Your task to perform on an android device: empty trash in google photos Image 0: 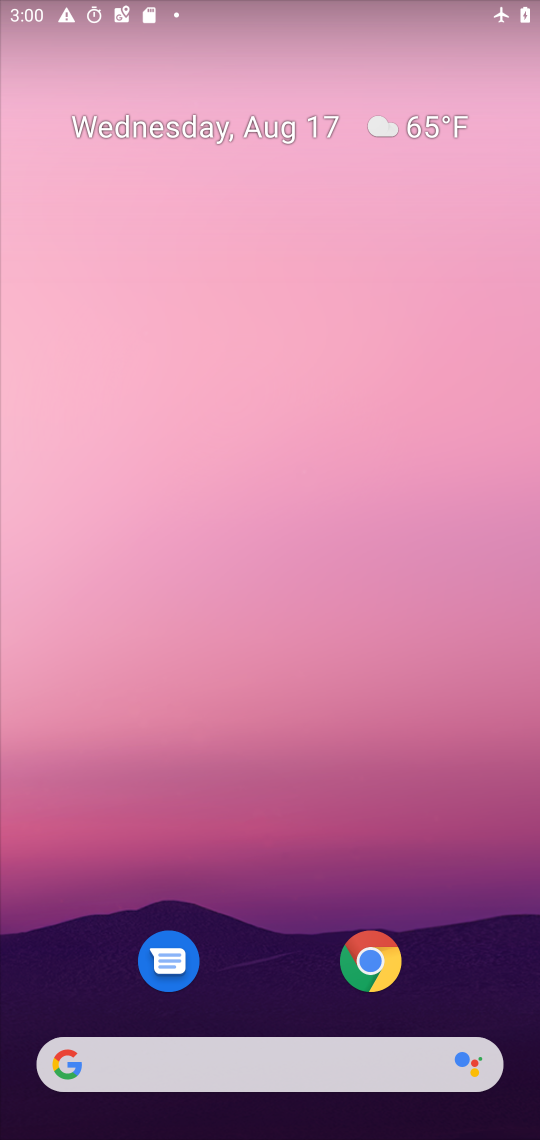
Step 0: drag from (279, 886) to (323, 0)
Your task to perform on an android device: empty trash in google photos Image 1: 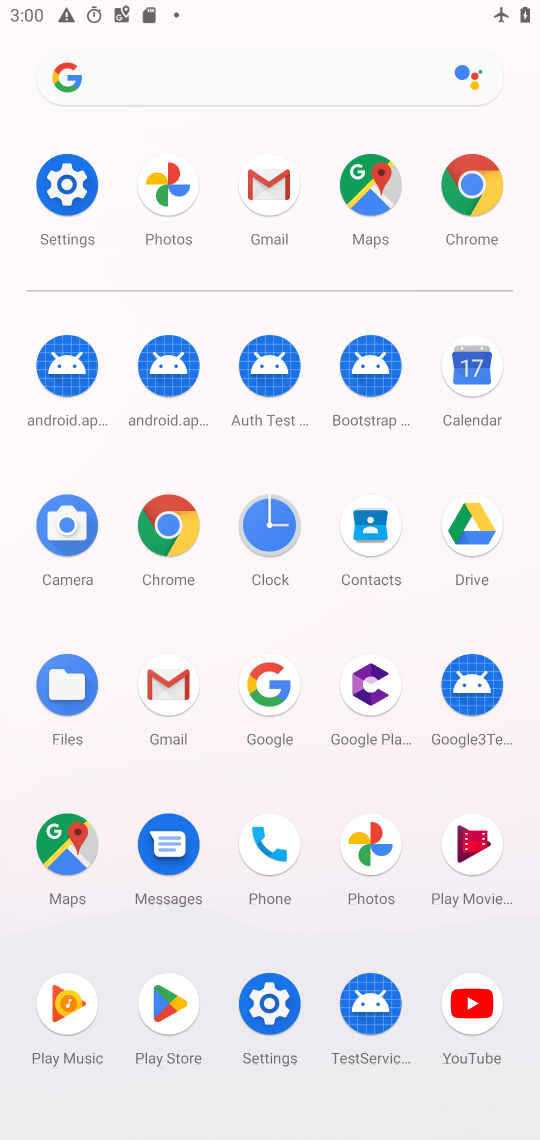
Step 1: click (372, 856)
Your task to perform on an android device: empty trash in google photos Image 2: 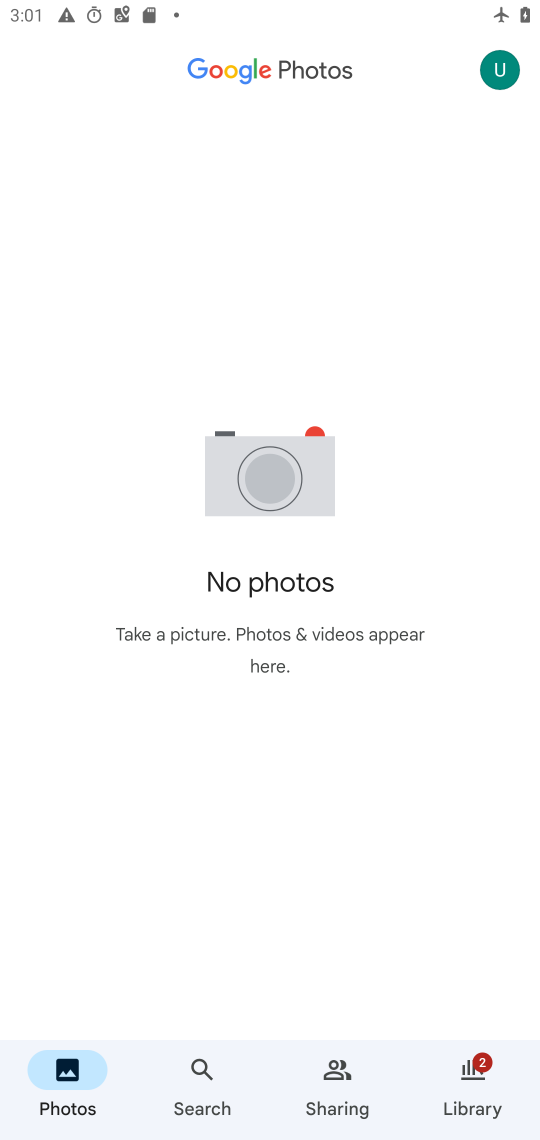
Step 2: click (505, 84)
Your task to perform on an android device: empty trash in google photos Image 3: 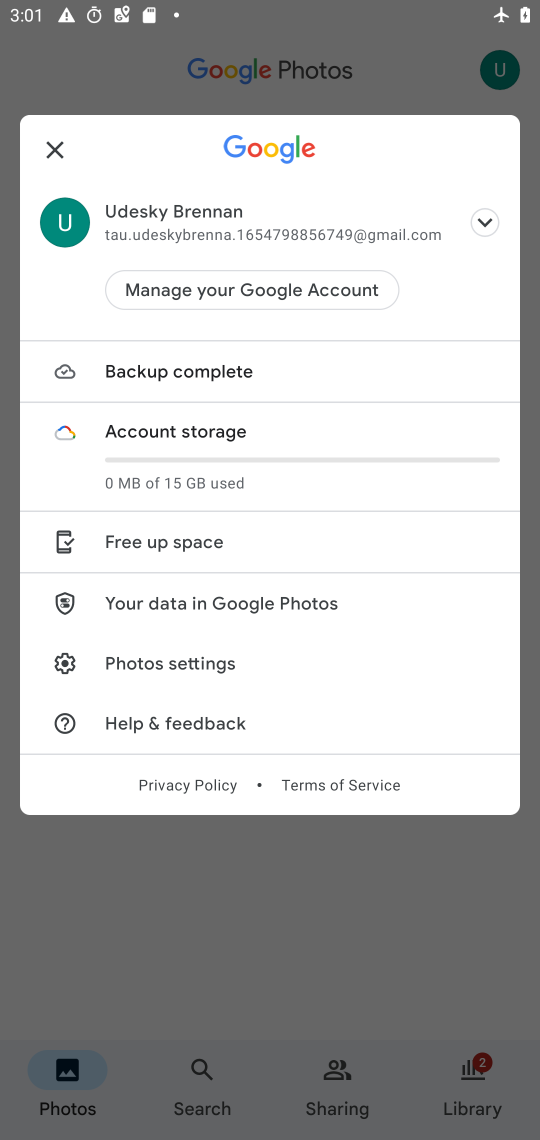
Step 3: task complete